Your task to perform on an android device: allow cookies in the chrome app Image 0: 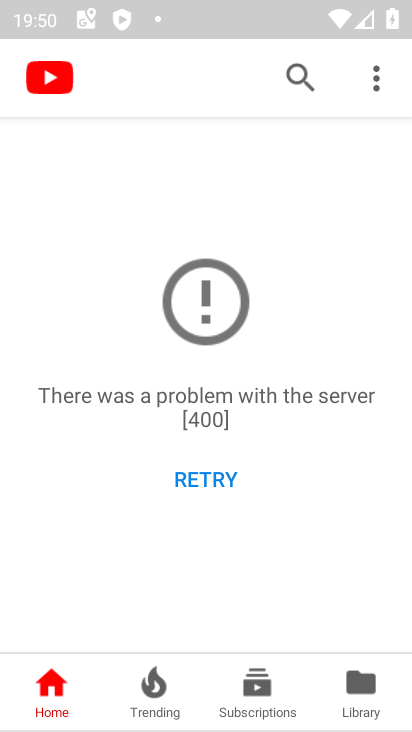
Step 0: press home button
Your task to perform on an android device: allow cookies in the chrome app Image 1: 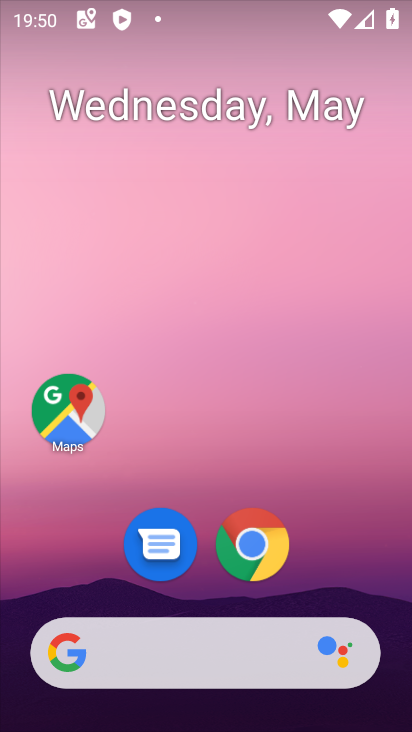
Step 1: click (258, 533)
Your task to perform on an android device: allow cookies in the chrome app Image 2: 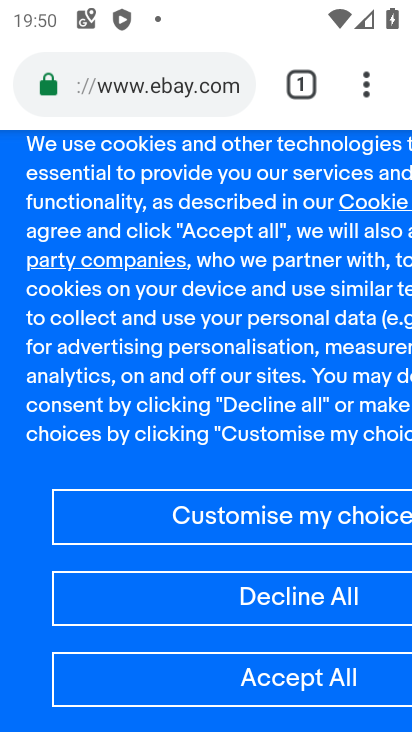
Step 2: click (382, 84)
Your task to perform on an android device: allow cookies in the chrome app Image 3: 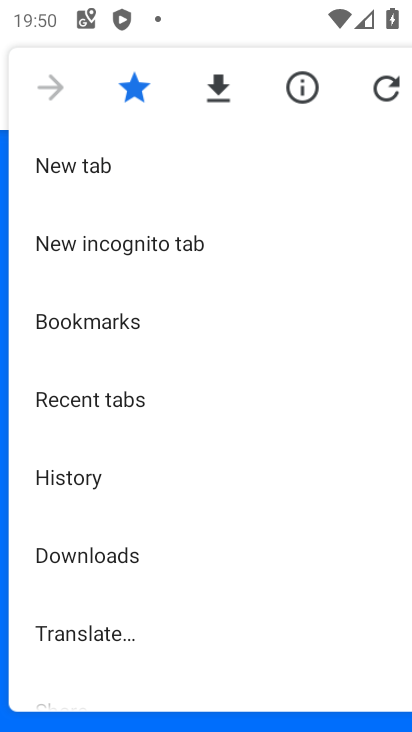
Step 3: drag from (74, 651) to (107, 227)
Your task to perform on an android device: allow cookies in the chrome app Image 4: 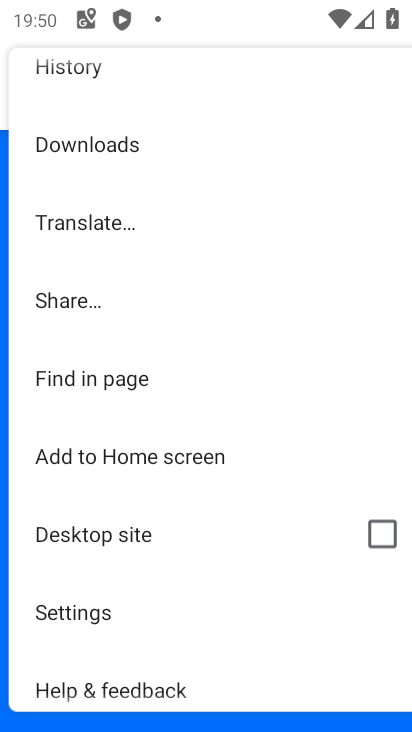
Step 4: click (89, 624)
Your task to perform on an android device: allow cookies in the chrome app Image 5: 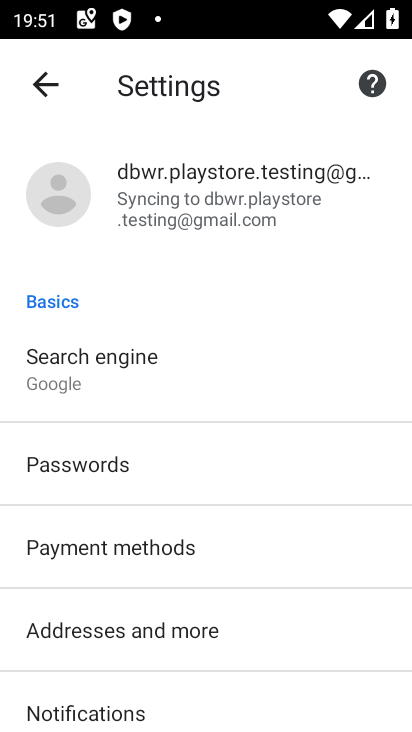
Step 5: drag from (87, 650) to (189, 196)
Your task to perform on an android device: allow cookies in the chrome app Image 6: 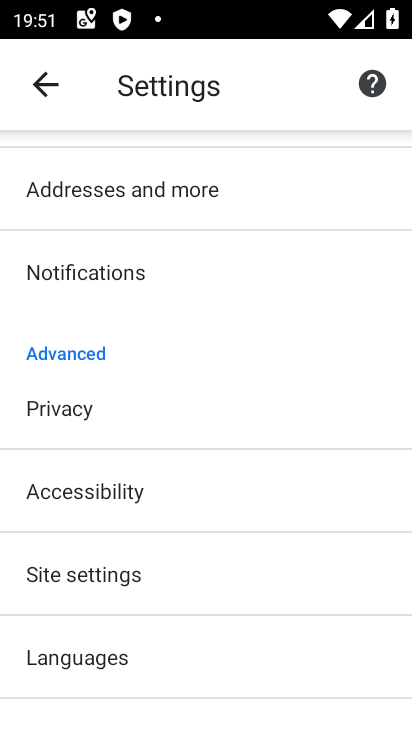
Step 6: drag from (62, 622) to (137, 316)
Your task to perform on an android device: allow cookies in the chrome app Image 7: 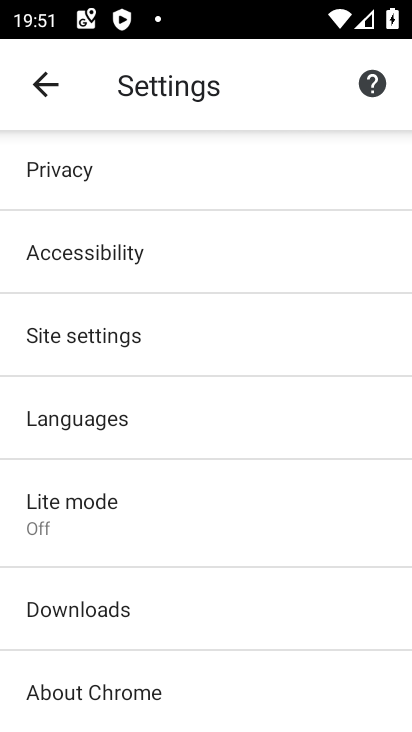
Step 7: click (199, 353)
Your task to perform on an android device: allow cookies in the chrome app Image 8: 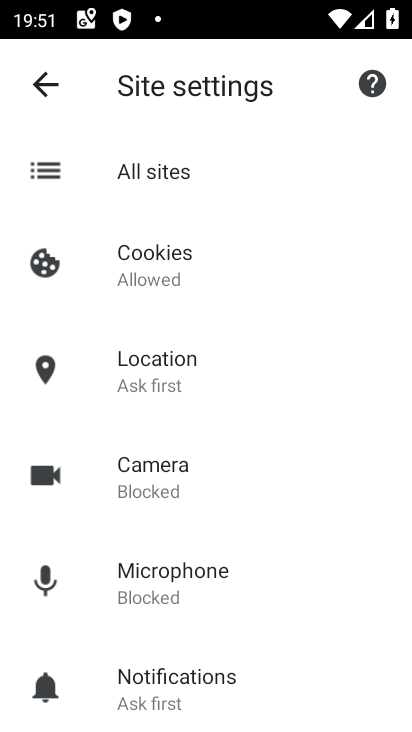
Step 8: click (206, 272)
Your task to perform on an android device: allow cookies in the chrome app Image 9: 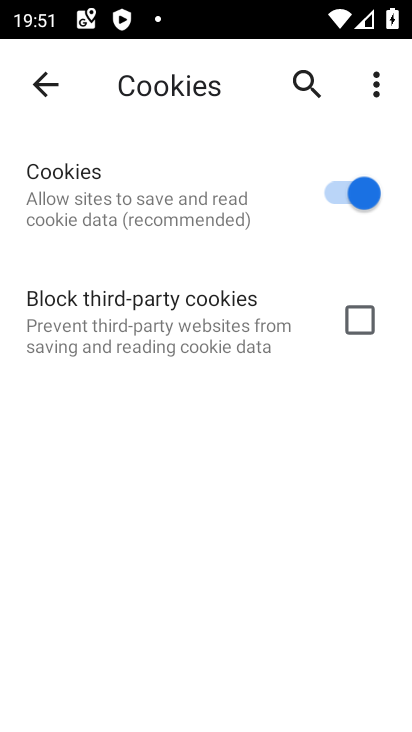
Step 9: task complete